Your task to perform on an android device: Open the web browser Image 0: 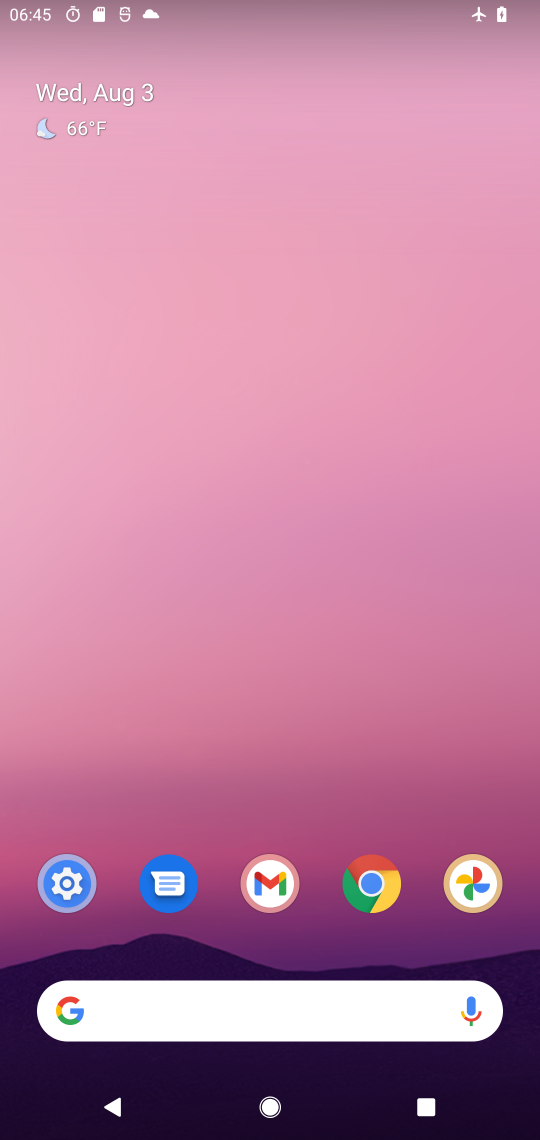
Step 0: drag from (235, 993) to (244, 407)
Your task to perform on an android device: Open the web browser Image 1: 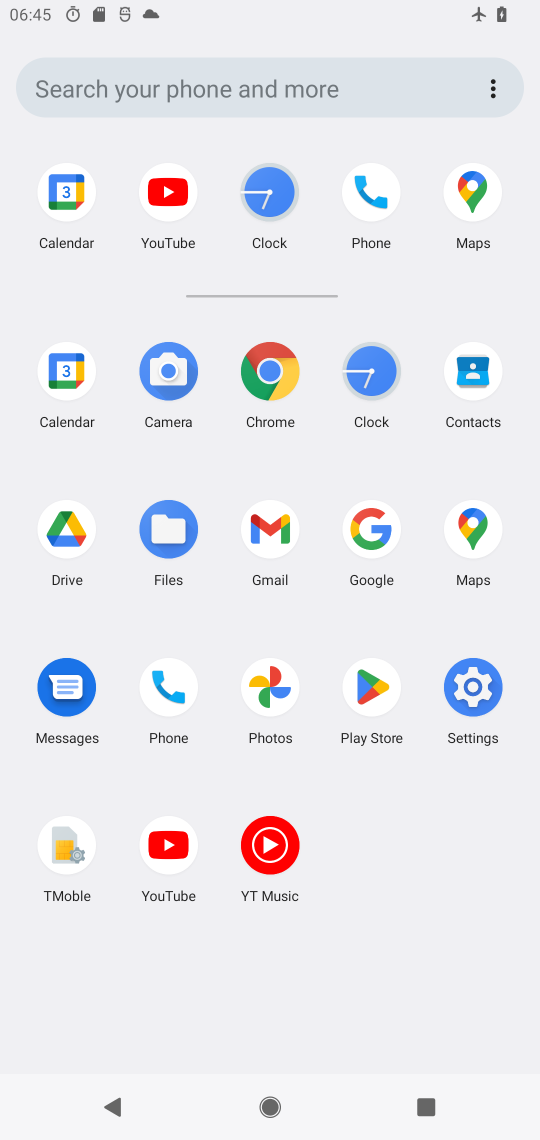
Step 1: click (263, 380)
Your task to perform on an android device: Open the web browser Image 2: 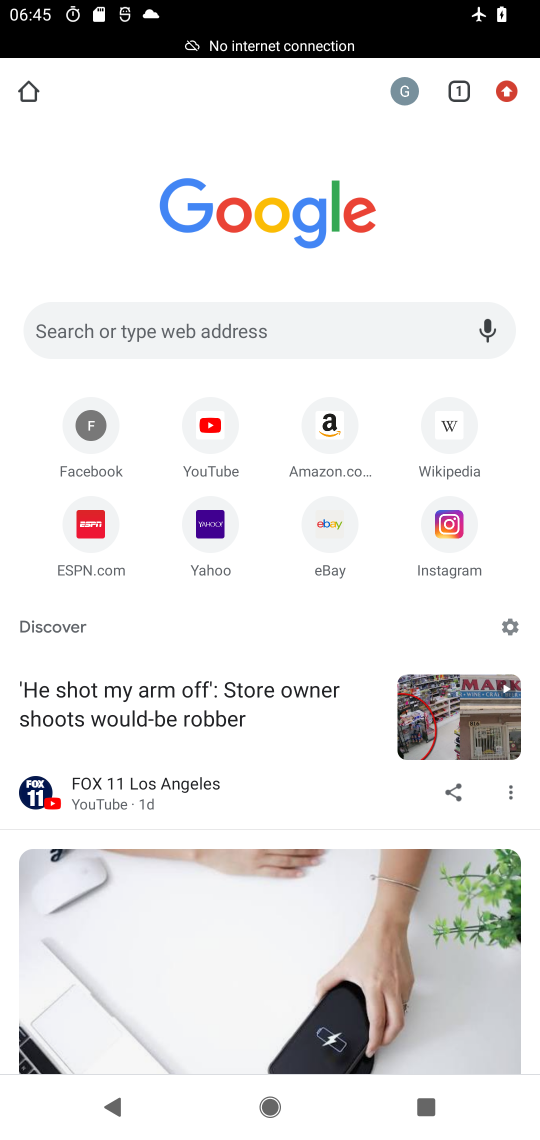
Step 2: task complete